Your task to perform on an android device: Open Google Chrome and click the shortcut for Amazon.com Image 0: 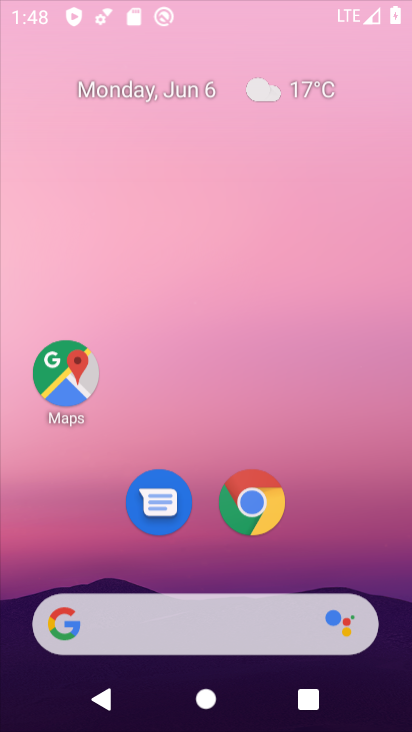
Step 0: click (279, 153)
Your task to perform on an android device: Open Google Chrome and click the shortcut for Amazon.com Image 1: 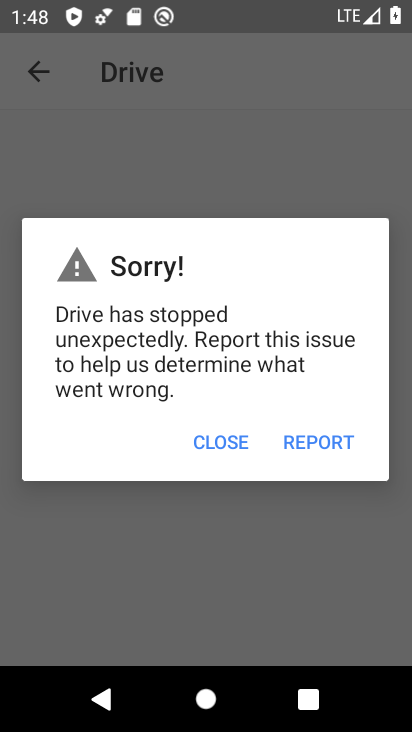
Step 1: press home button
Your task to perform on an android device: Open Google Chrome and click the shortcut for Amazon.com Image 2: 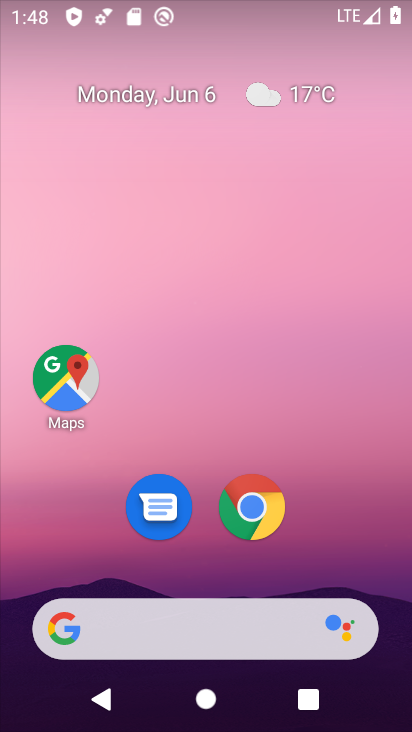
Step 2: click (261, 510)
Your task to perform on an android device: Open Google Chrome and click the shortcut for Amazon.com Image 3: 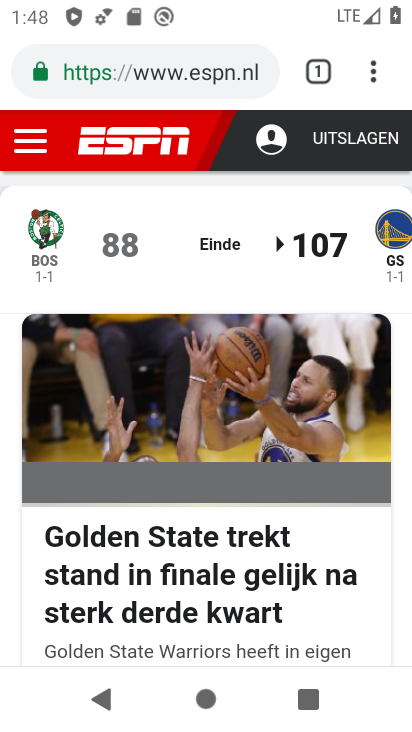
Step 3: click (312, 71)
Your task to perform on an android device: Open Google Chrome and click the shortcut for Amazon.com Image 4: 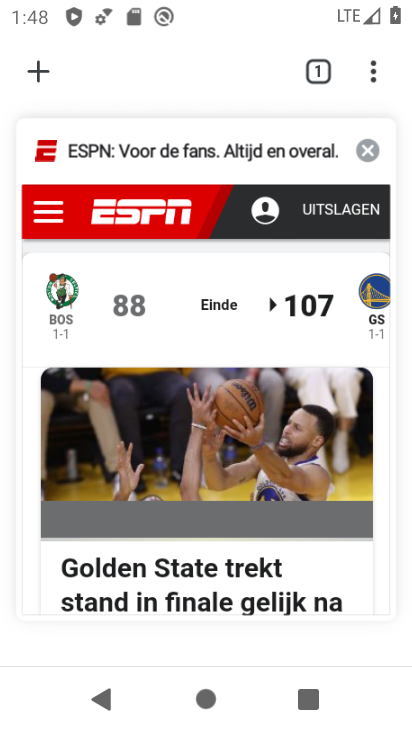
Step 4: click (33, 69)
Your task to perform on an android device: Open Google Chrome and click the shortcut for Amazon.com Image 5: 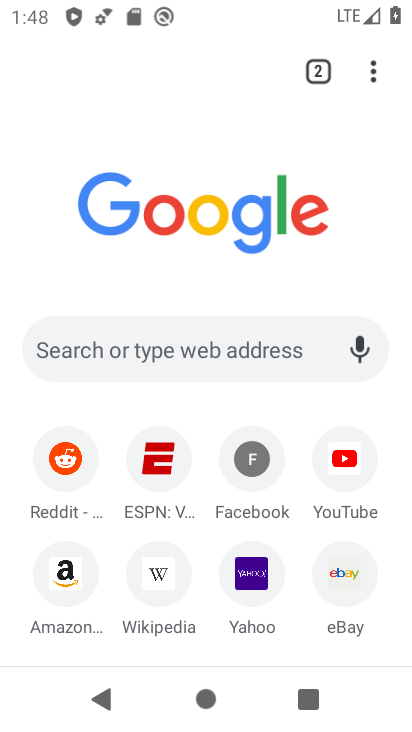
Step 5: click (79, 585)
Your task to perform on an android device: Open Google Chrome and click the shortcut for Amazon.com Image 6: 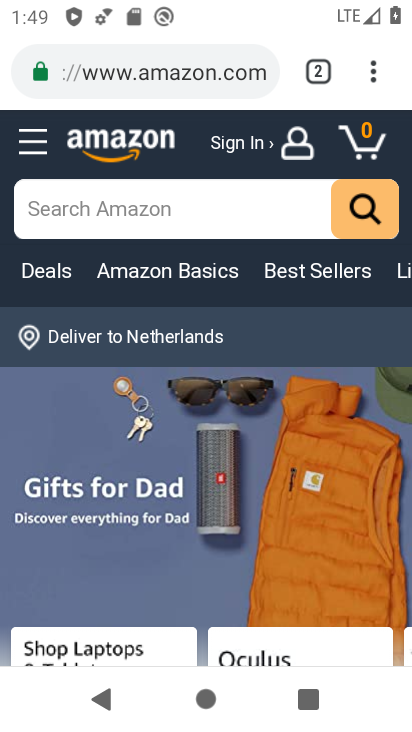
Step 6: task complete